Your task to perform on an android device: delete the emails in spam in the gmail app Image 0: 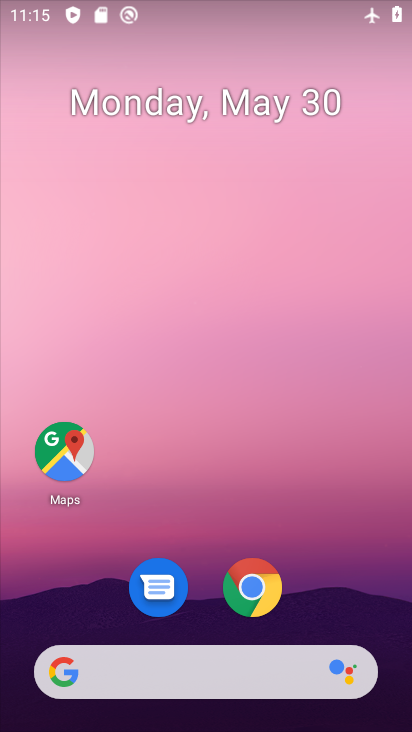
Step 0: drag from (264, 262) to (277, 230)
Your task to perform on an android device: delete the emails in spam in the gmail app Image 1: 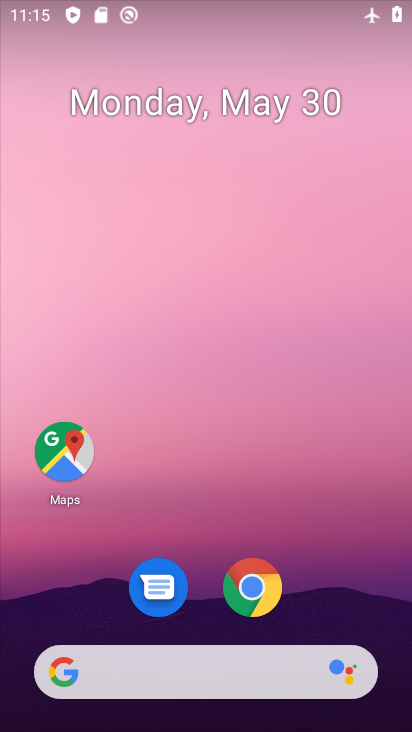
Step 1: drag from (216, 583) to (284, 41)
Your task to perform on an android device: delete the emails in spam in the gmail app Image 2: 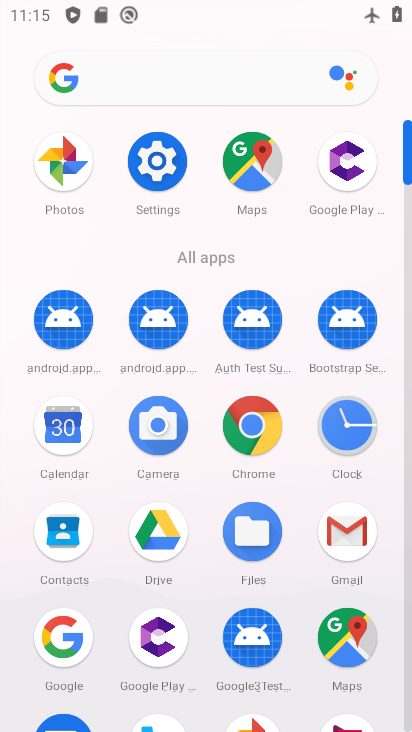
Step 2: click (330, 532)
Your task to perform on an android device: delete the emails in spam in the gmail app Image 3: 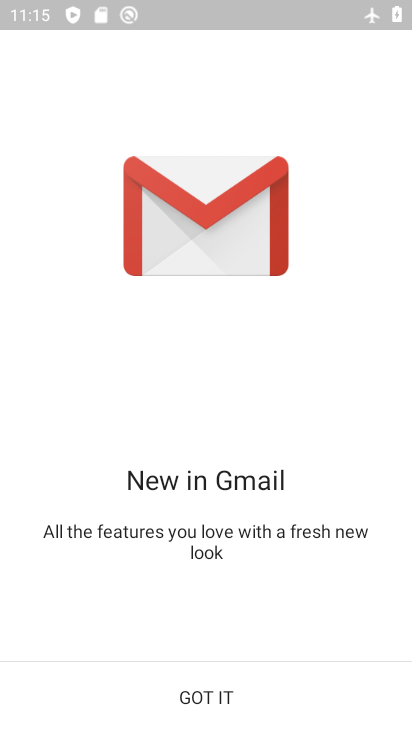
Step 3: click (265, 707)
Your task to perform on an android device: delete the emails in spam in the gmail app Image 4: 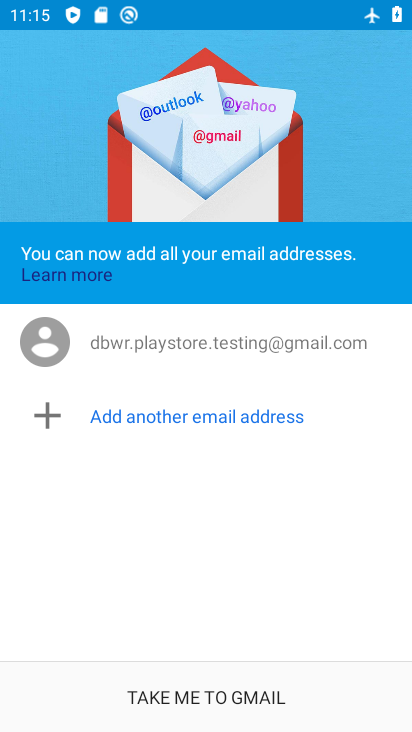
Step 4: click (265, 707)
Your task to perform on an android device: delete the emails in spam in the gmail app Image 5: 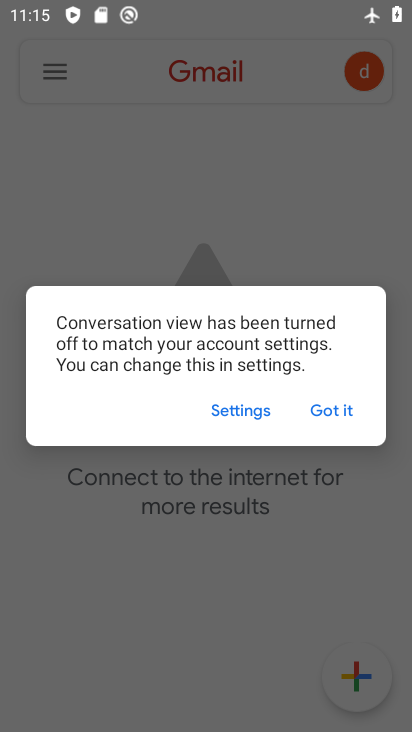
Step 5: click (328, 405)
Your task to perform on an android device: delete the emails in spam in the gmail app Image 6: 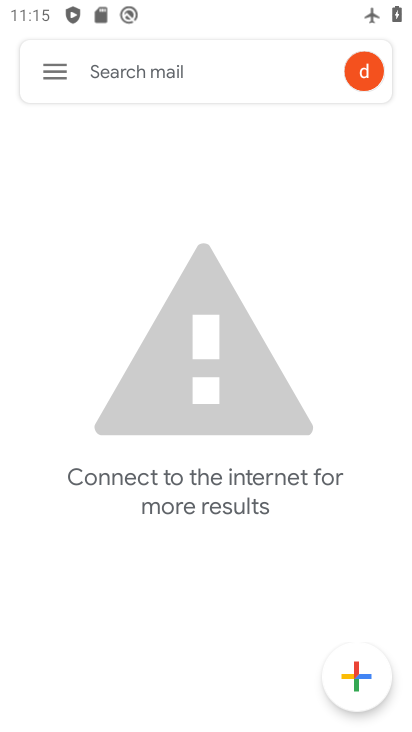
Step 6: drag from (201, 23) to (176, 674)
Your task to perform on an android device: delete the emails in spam in the gmail app Image 7: 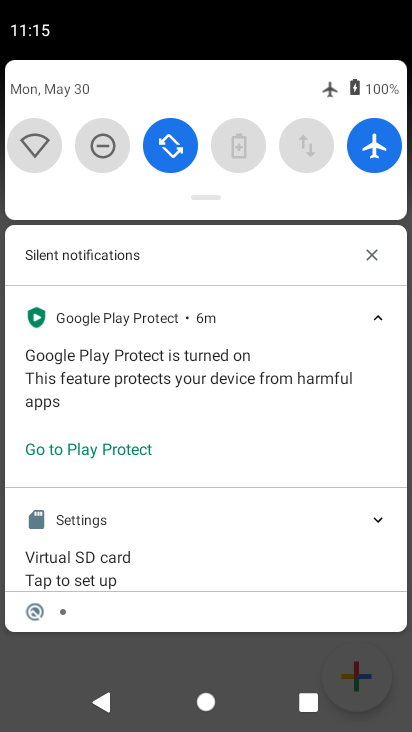
Step 7: click (358, 145)
Your task to perform on an android device: delete the emails in spam in the gmail app Image 8: 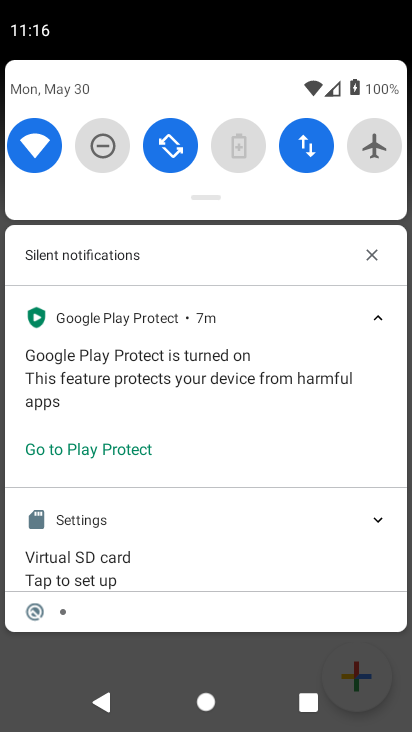
Step 8: task complete